Your task to perform on an android device: set an alarm Image 0: 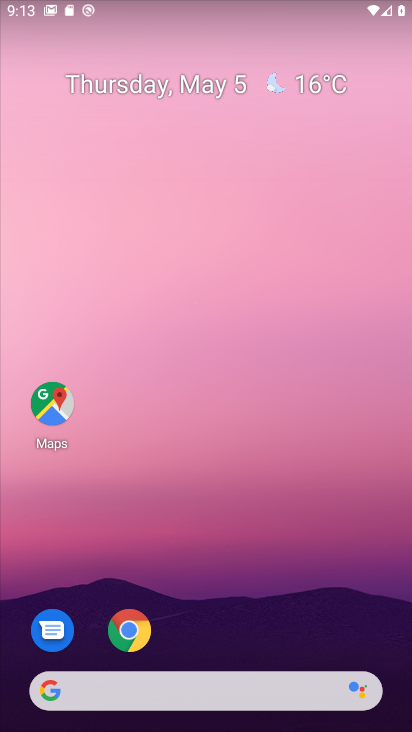
Step 0: drag from (299, 652) to (308, 174)
Your task to perform on an android device: set an alarm Image 1: 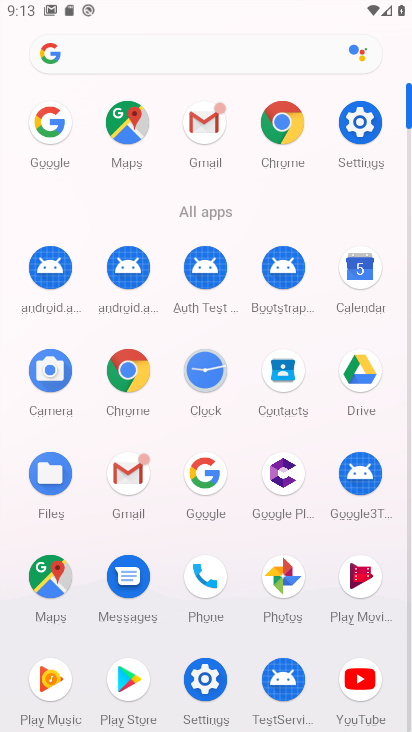
Step 1: click (197, 377)
Your task to perform on an android device: set an alarm Image 2: 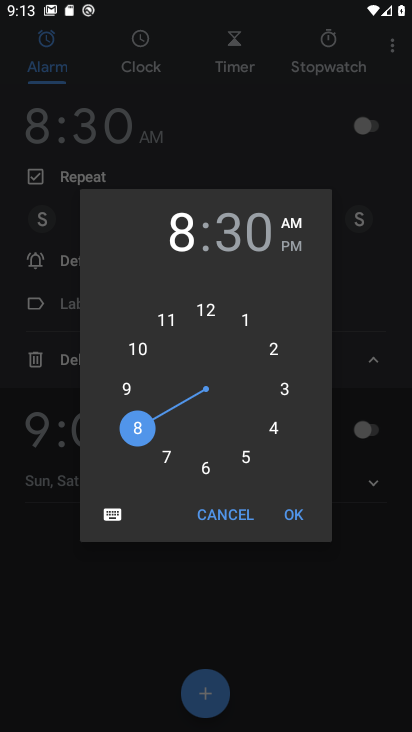
Step 2: click (234, 522)
Your task to perform on an android device: set an alarm Image 3: 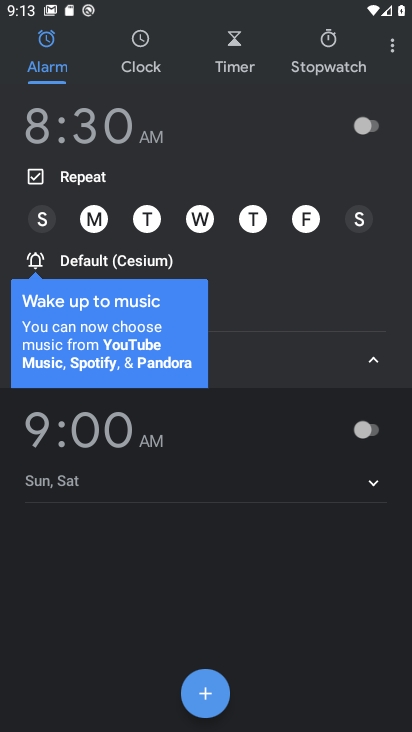
Step 3: click (377, 127)
Your task to perform on an android device: set an alarm Image 4: 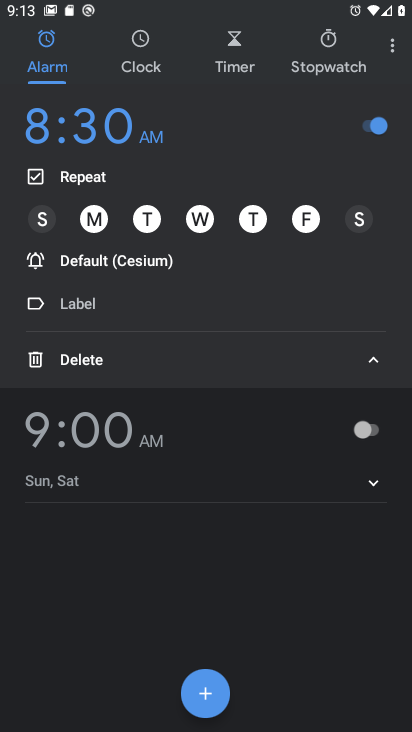
Step 4: task complete